Your task to perform on an android device: Go to eBay Image 0: 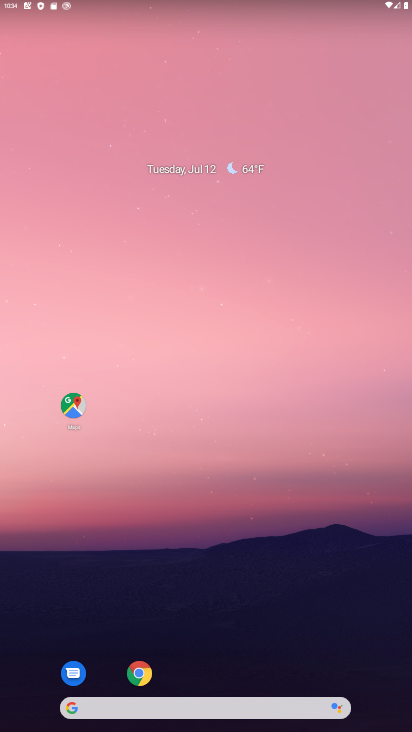
Step 0: drag from (243, 249) to (229, 46)
Your task to perform on an android device: Go to eBay Image 1: 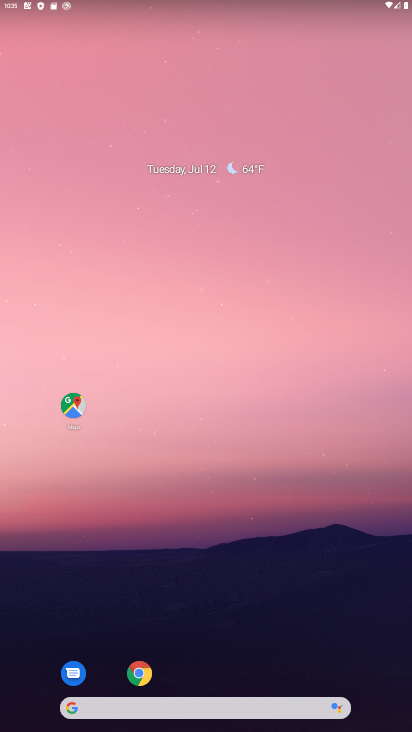
Step 1: drag from (291, 626) to (234, 41)
Your task to perform on an android device: Go to eBay Image 2: 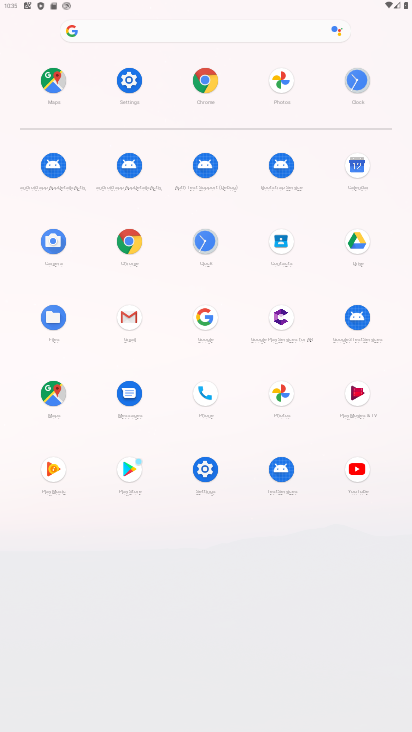
Step 2: click (214, 83)
Your task to perform on an android device: Go to eBay Image 3: 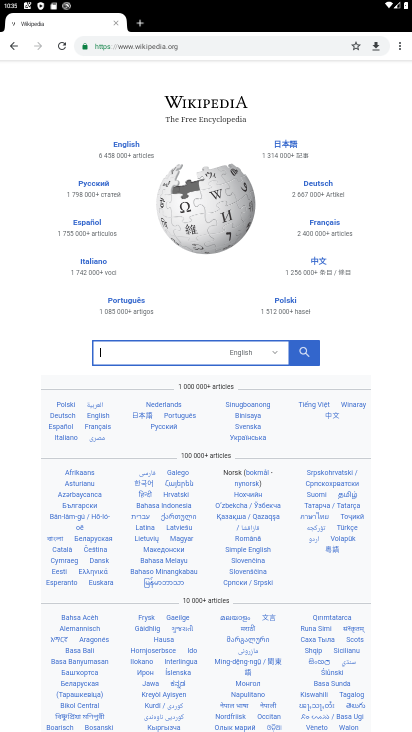
Step 3: click (213, 53)
Your task to perform on an android device: Go to eBay Image 4: 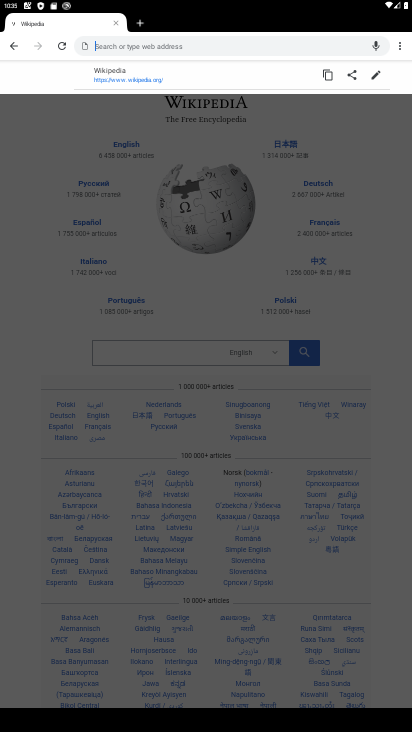
Step 4: type "ebay"
Your task to perform on an android device: Go to eBay Image 5: 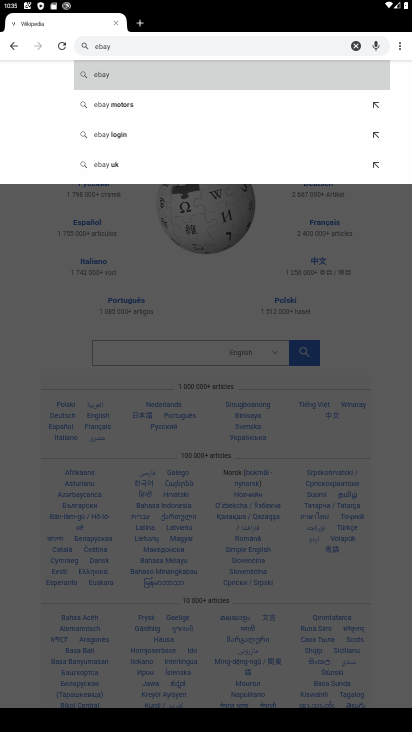
Step 5: click (107, 72)
Your task to perform on an android device: Go to eBay Image 6: 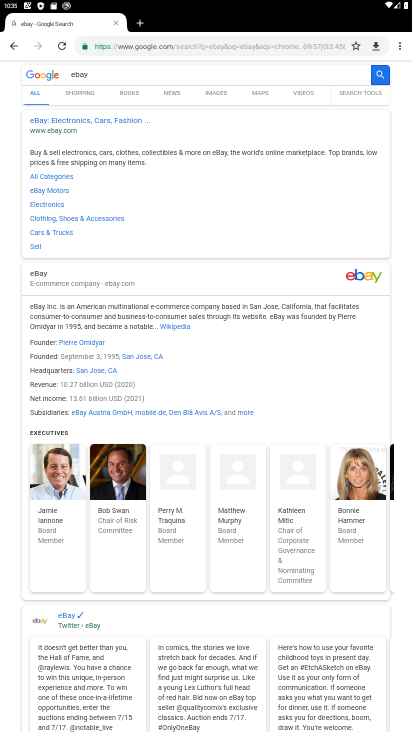
Step 6: click (66, 132)
Your task to perform on an android device: Go to eBay Image 7: 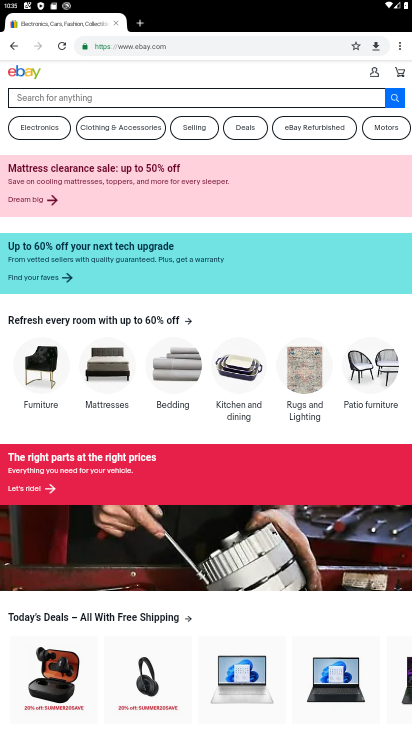
Step 7: task complete